Your task to perform on an android device: Search for Italian restaurants on Maps Image 0: 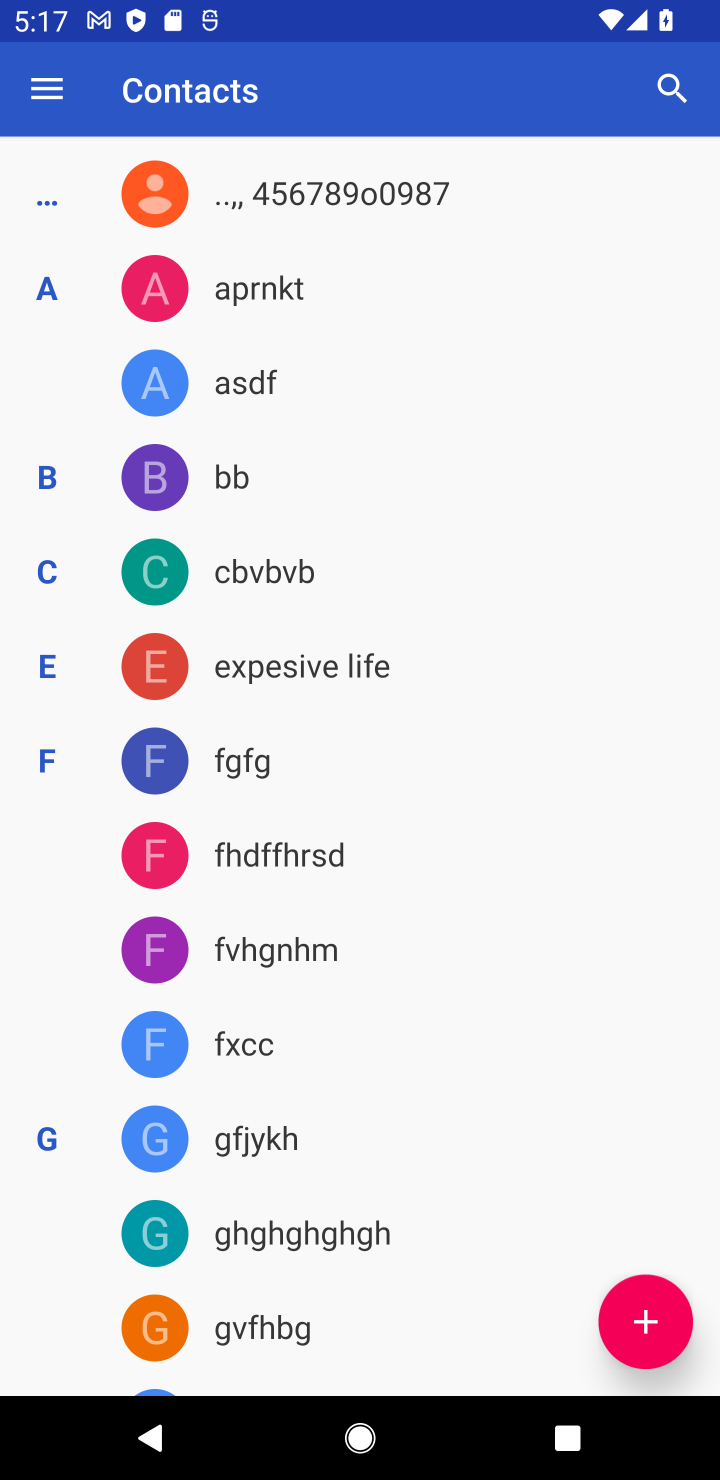
Step 0: press home button
Your task to perform on an android device: Search for Italian restaurants on Maps Image 1: 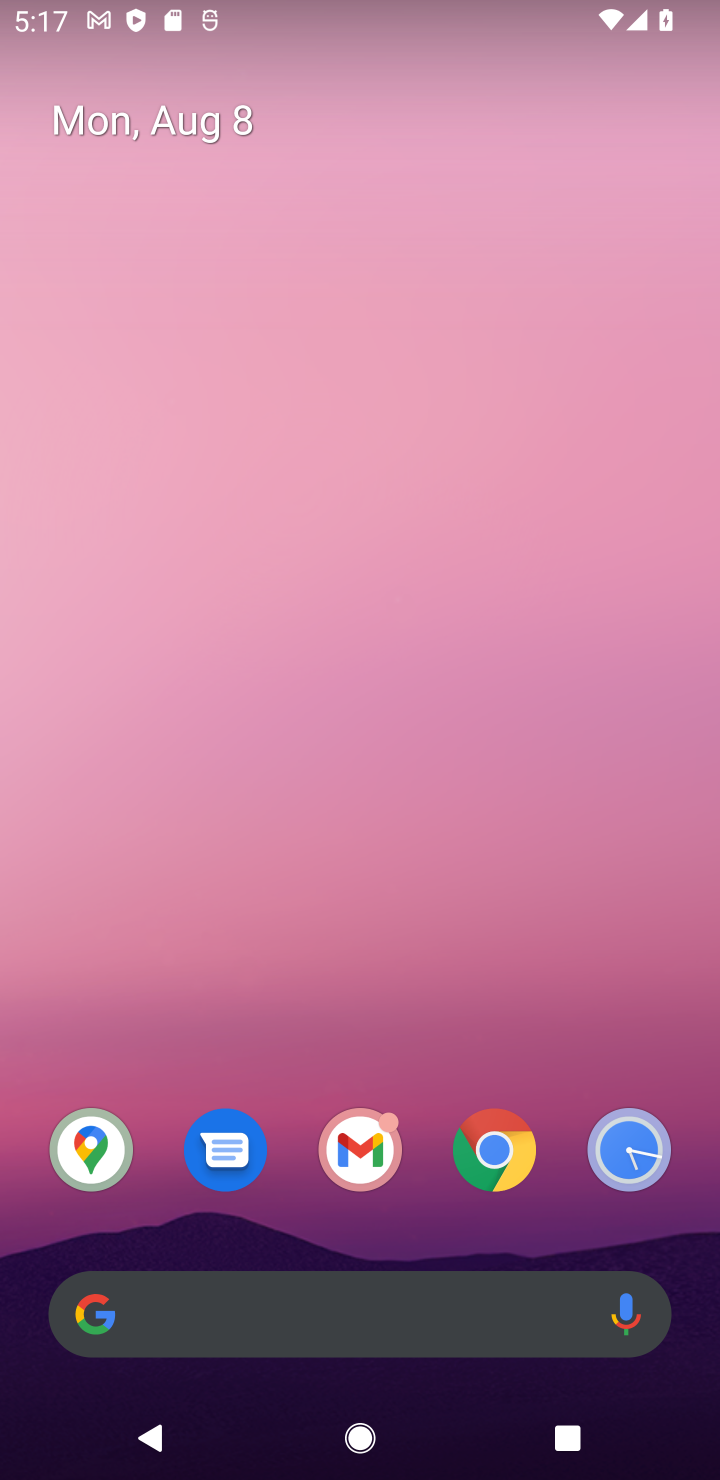
Step 1: click (101, 1157)
Your task to perform on an android device: Search for Italian restaurants on Maps Image 2: 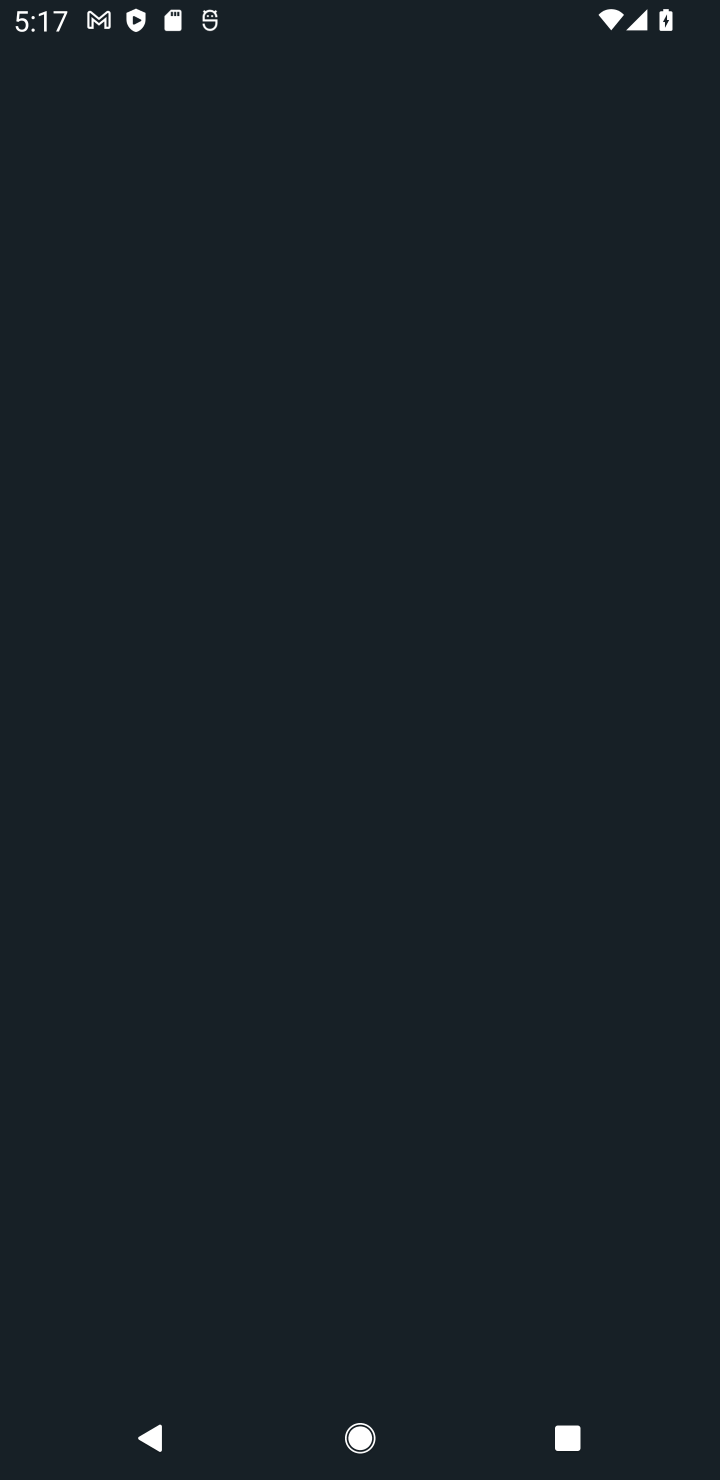
Step 2: task complete